Your task to perform on an android device: turn off location history Image 0: 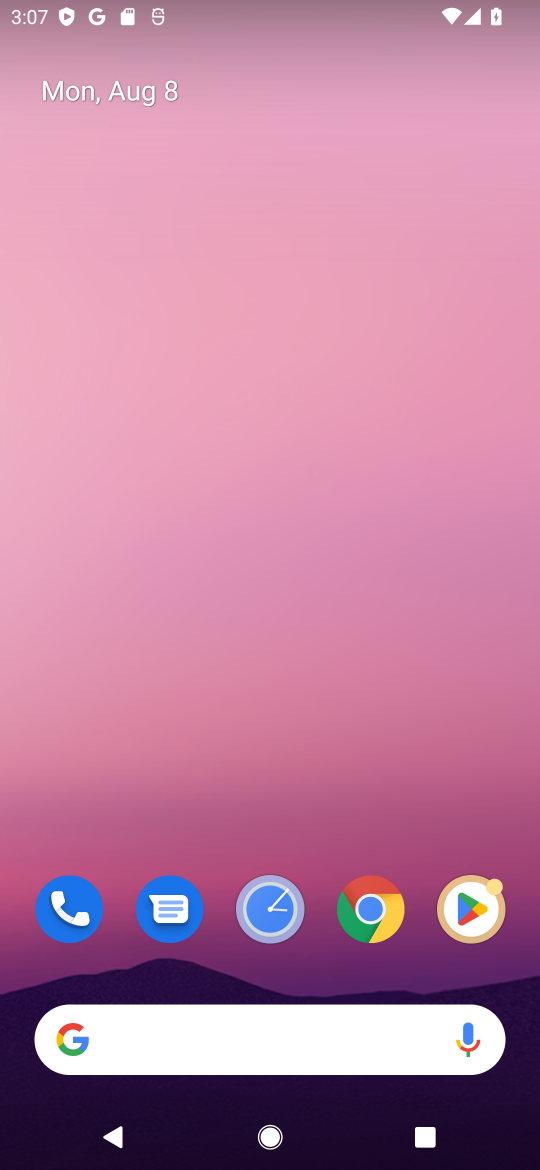
Step 0: drag from (222, 997) to (304, 31)
Your task to perform on an android device: turn off location history Image 1: 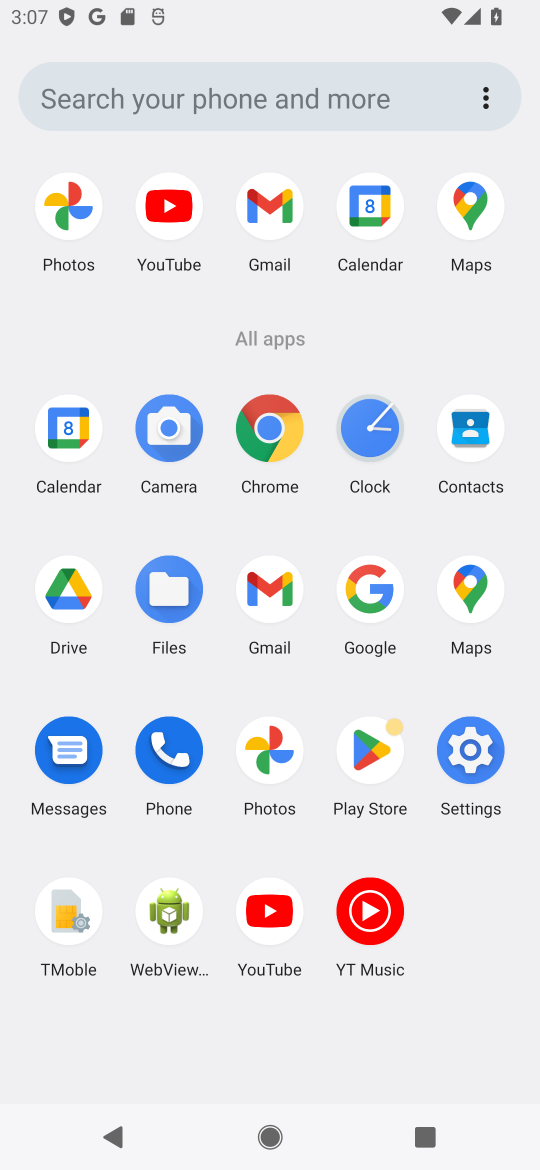
Step 1: click (471, 752)
Your task to perform on an android device: turn off location history Image 2: 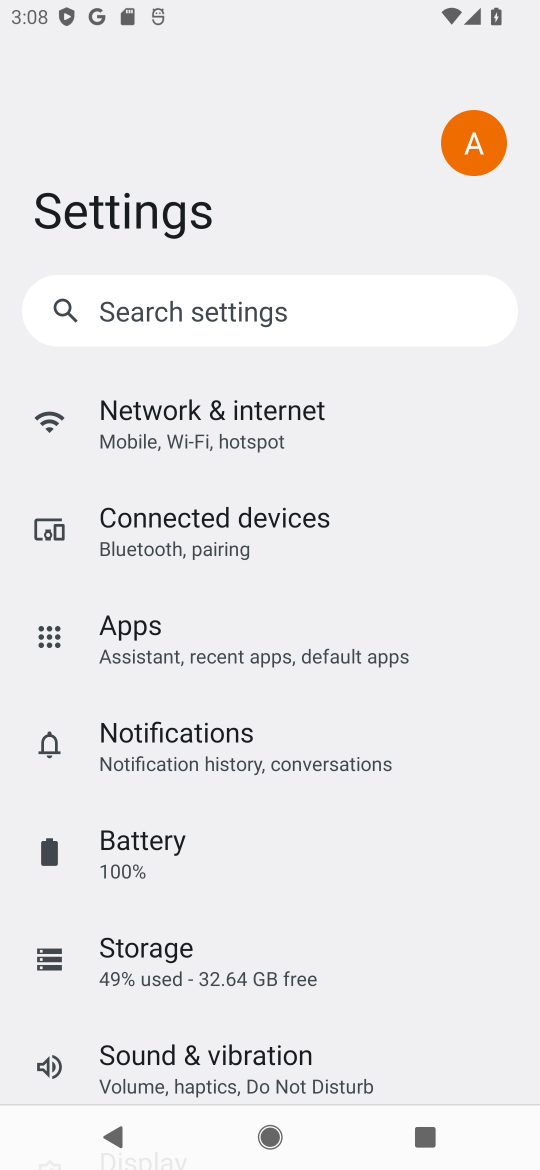
Step 2: drag from (207, 1072) to (213, 260)
Your task to perform on an android device: turn off location history Image 3: 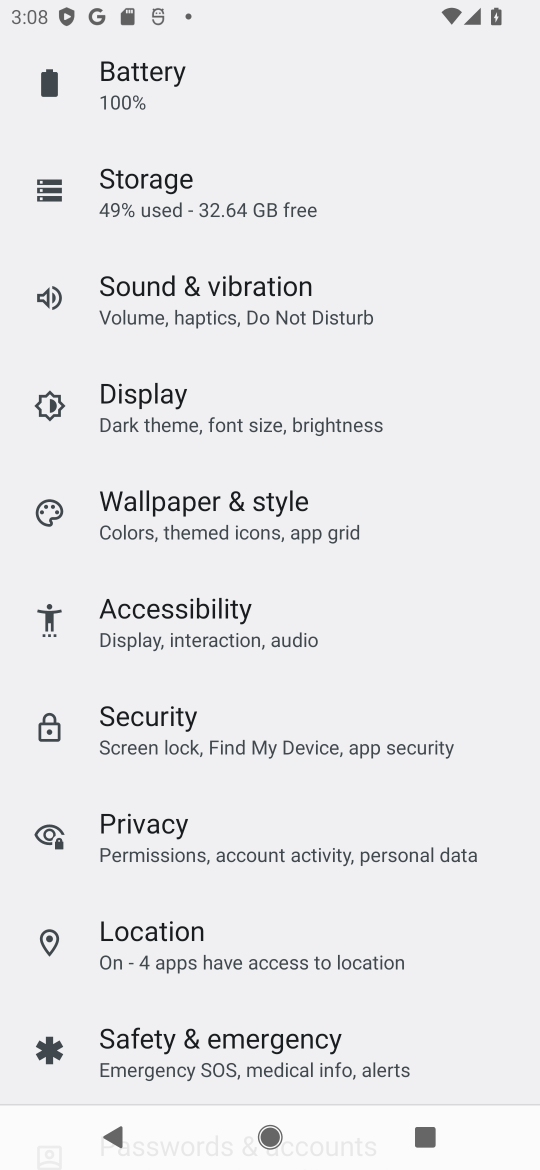
Step 3: click (360, 935)
Your task to perform on an android device: turn off location history Image 4: 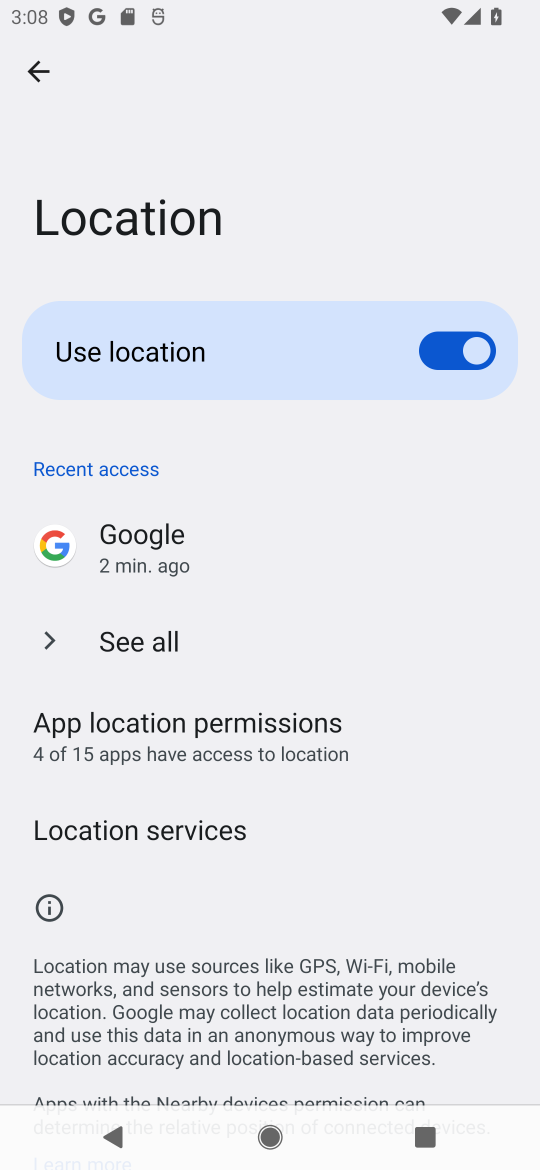
Step 4: click (174, 829)
Your task to perform on an android device: turn off location history Image 5: 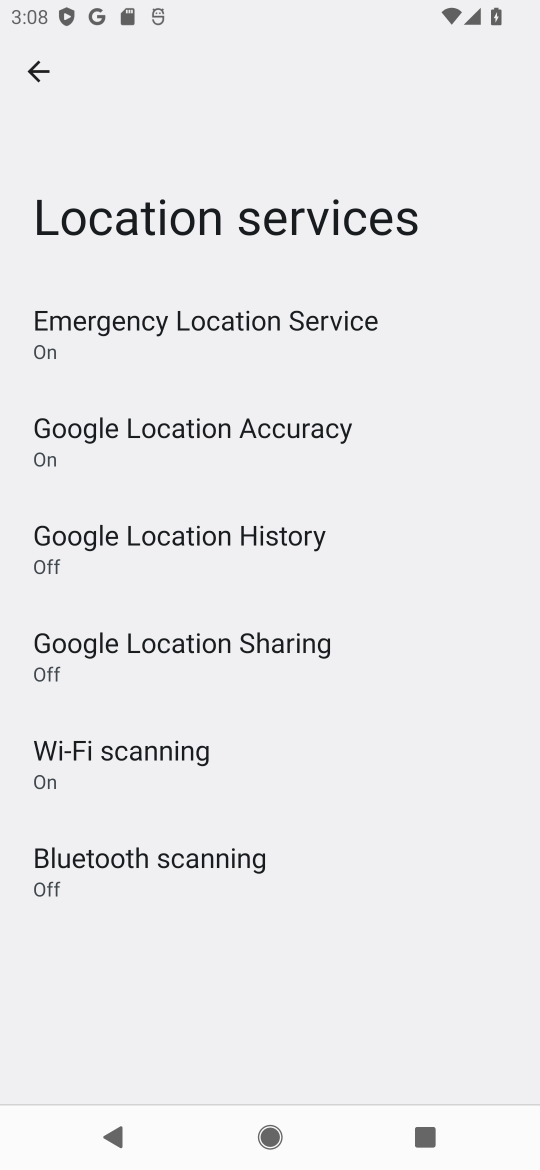
Step 5: click (325, 559)
Your task to perform on an android device: turn off location history Image 6: 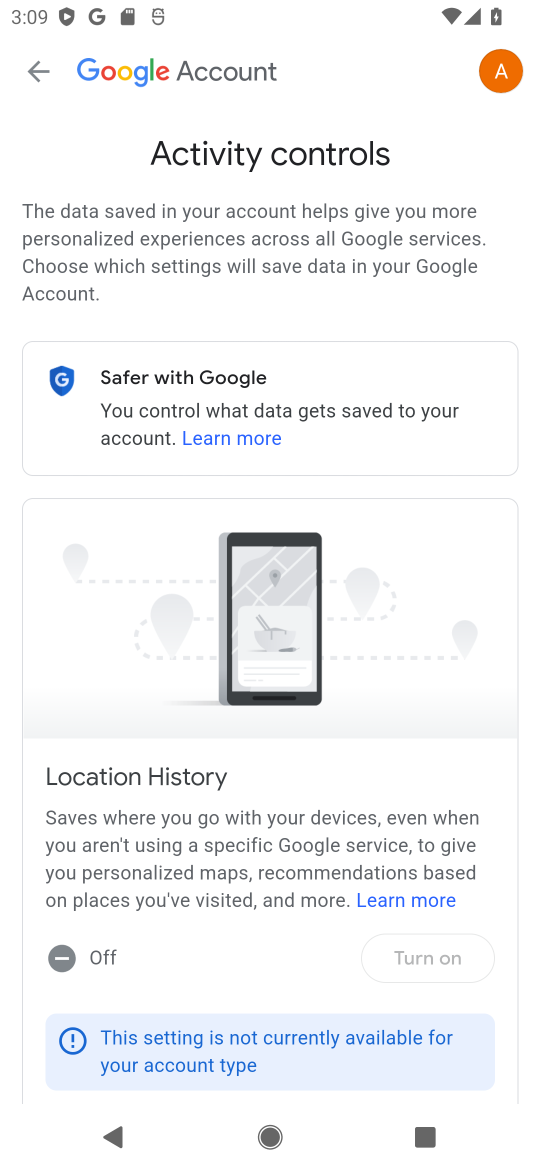
Step 6: task complete